Your task to perform on an android device: toggle improve location accuracy Image 0: 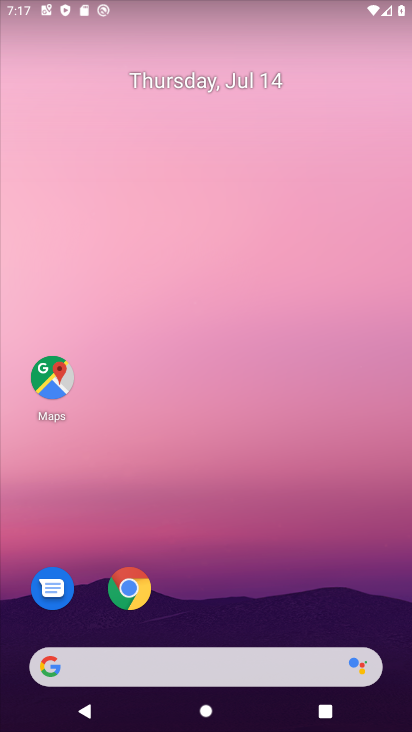
Step 0: drag from (364, 621) to (279, 1)
Your task to perform on an android device: toggle improve location accuracy Image 1: 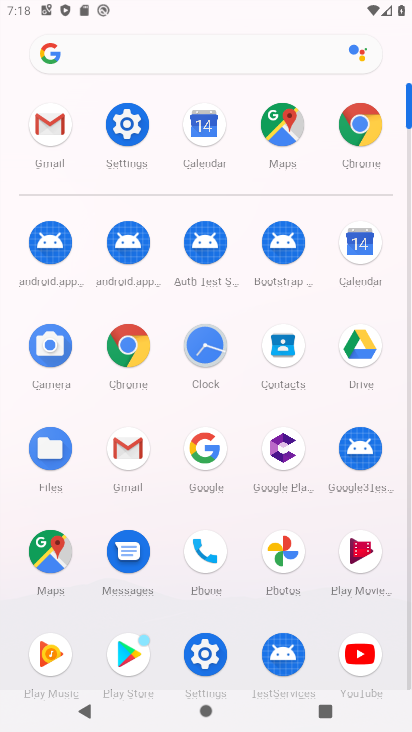
Step 1: click (214, 641)
Your task to perform on an android device: toggle improve location accuracy Image 2: 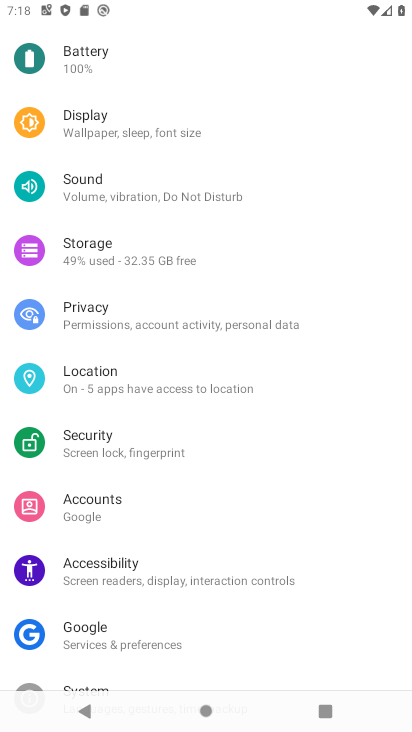
Step 2: click (66, 383)
Your task to perform on an android device: toggle improve location accuracy Image 3: 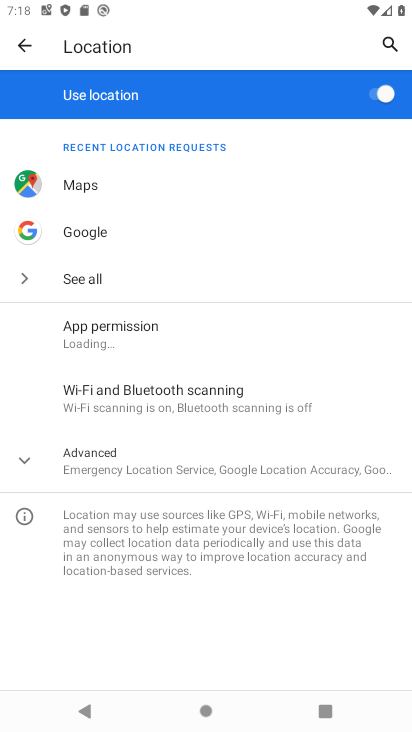
Step 3: click (90, 449)
Your task to perform on an android device: toggle improve location accuracy Image 4: 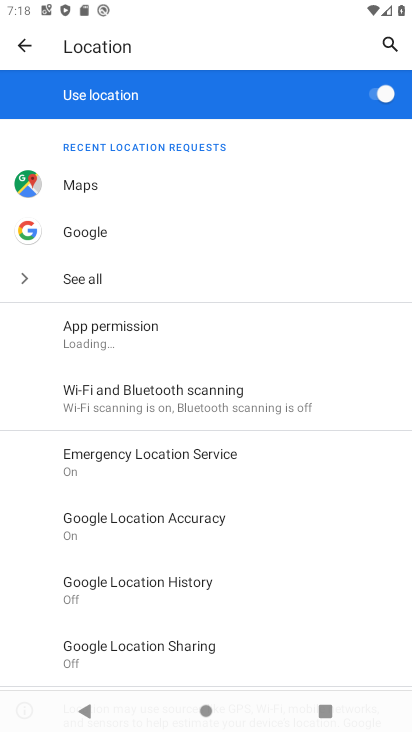
Step 4: click (144, 528)
Your task to perform on an android device: toggle improve location accuracy Image 5: 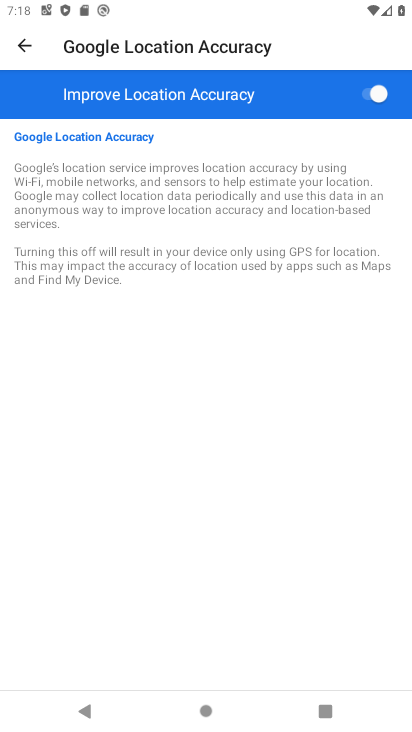
Step 5: click (366, 86)
Your task to perform on an android device: toggle improve location accuracy Image 6: 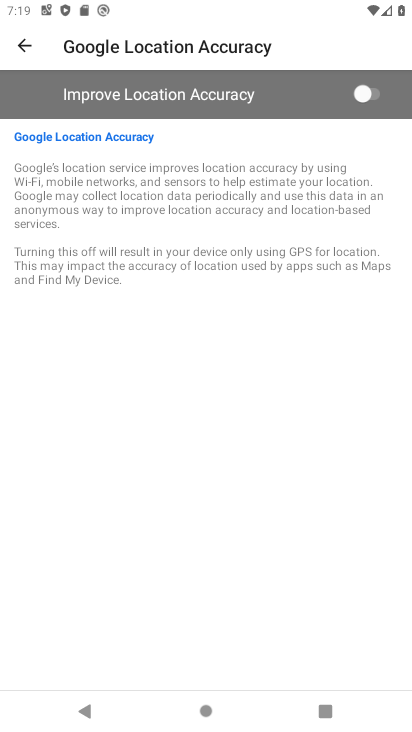
Step 6: task complete